Your task to perform on an android device: create a new album in the google photos Image 0: 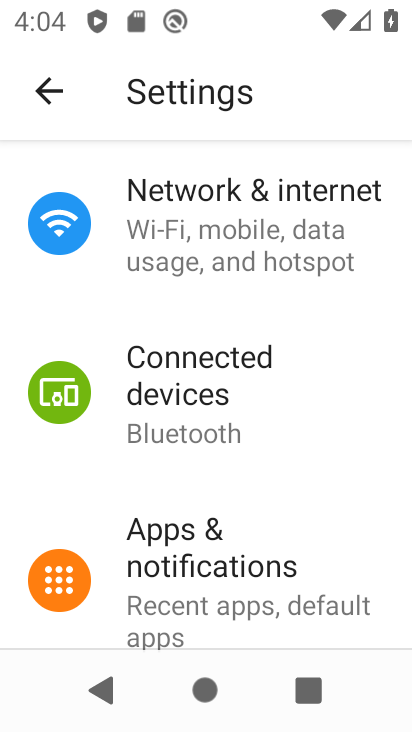
Step 0: press back button
Your task to perform on an android device: create a new album in the google photos Image 1: 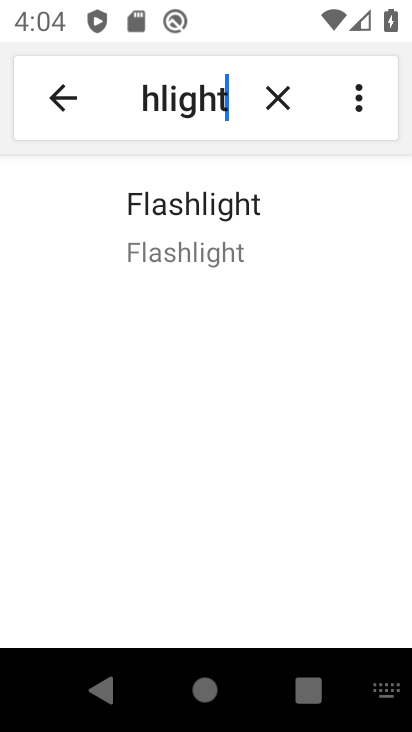
Step 1: press back button
Your task to perform on an android device: create a new album in the google photos Image 2: 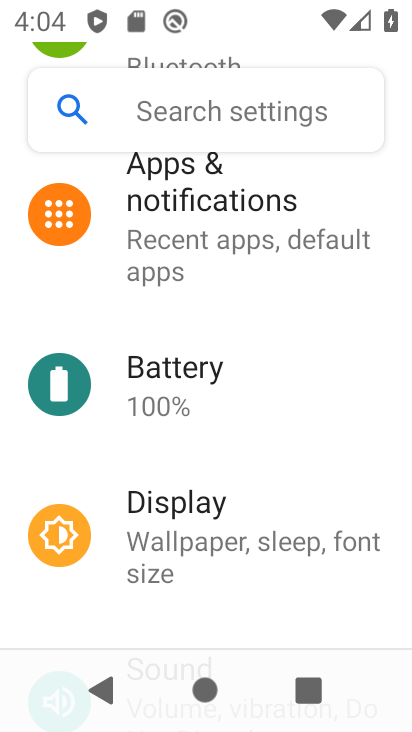
Step 2: press back button
Your task to perform on an android device: create a new album in the google photos Image 3: 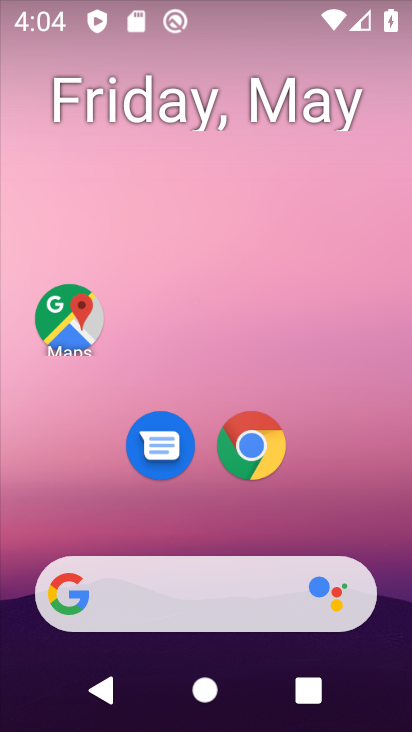
Step 3: drag from (201, 509) to (229, 37)
Your task to perform on an android device: create a new album in the google photos Image 4: 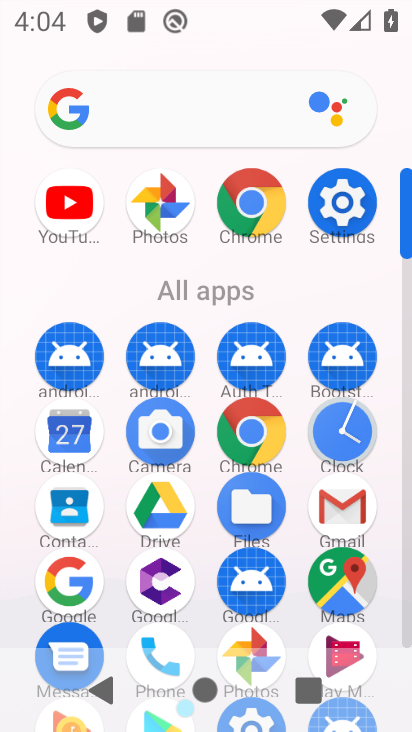
Step 4: drag from (255, 579) to (335, 128)
Your task to perform on an android device: create a new album in the google photos Image 5: 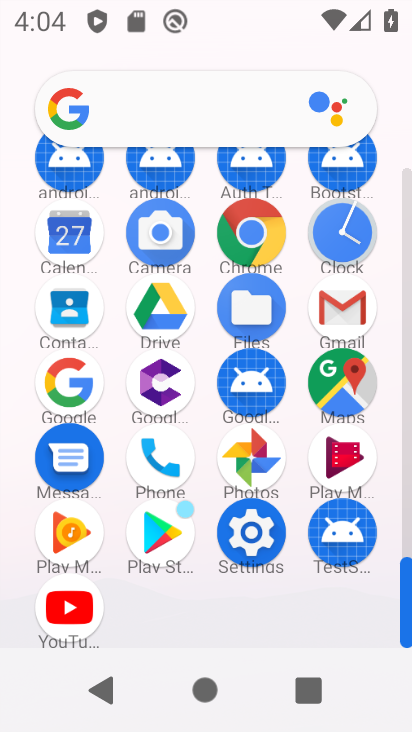
Step 5: click (237, 445)
Your task to perform on an android device: create a new album in the google photos Image 6: 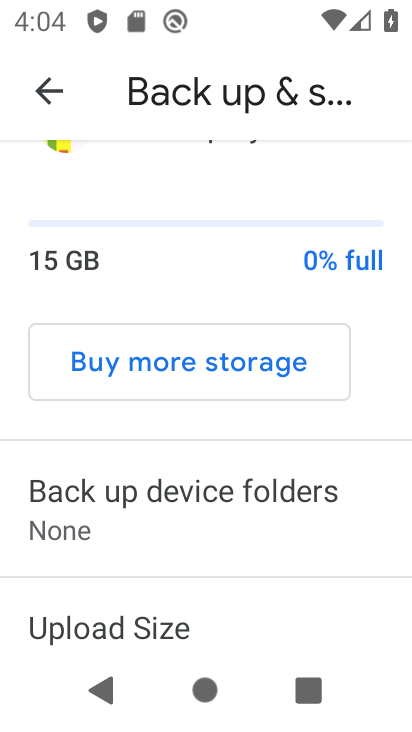
Step 6: click (53, 84)
Your task to perform on an android device: create a new album in the google photos Image 7: 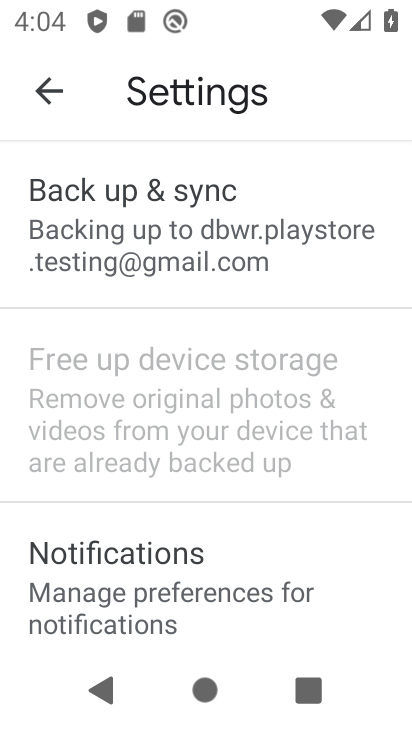
Step 7: click (36, 90)
Your task to perform on an android device: create a new album in the google photos Image 8: 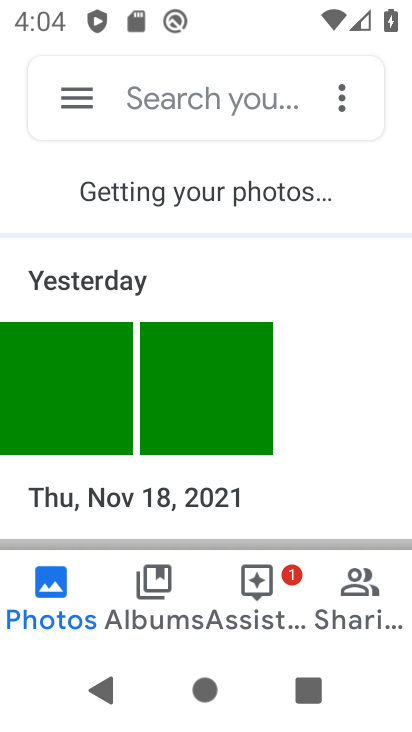
Step 8: click (342, 85)
Your task to perform on an android device: create a new album in the google photos Image 9: 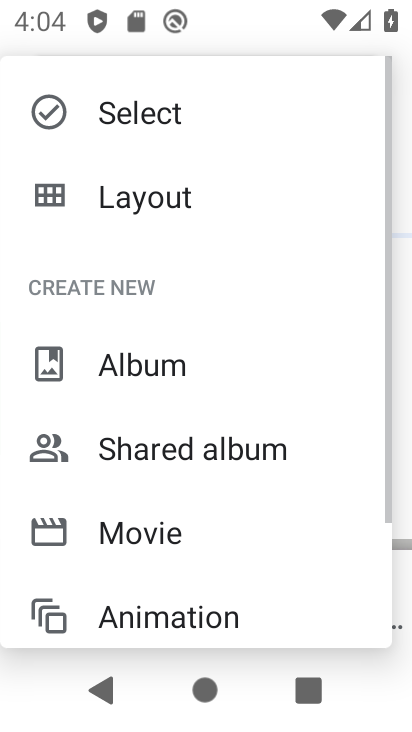
Step 9: click (111, 369)
Your task to perform on an android device: create a new album in the google photos Image 10: 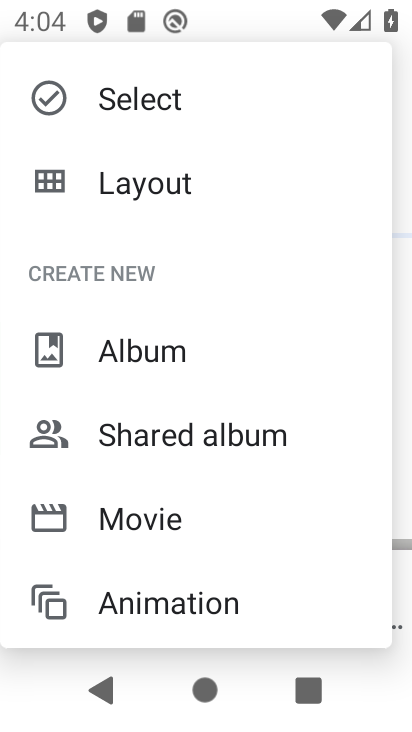
Step 10: click (147, 355)
Your task to perform on an android device: create a new album in the google photos Image 11: 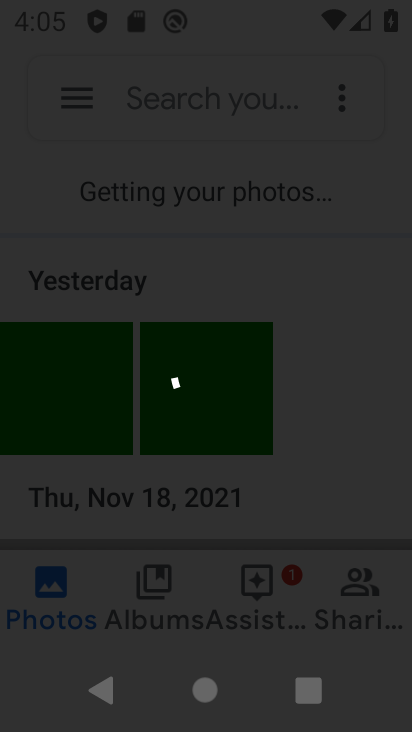
Step 11: task complete